Your task to perform on an android device: Go to CNN.com Image 0: 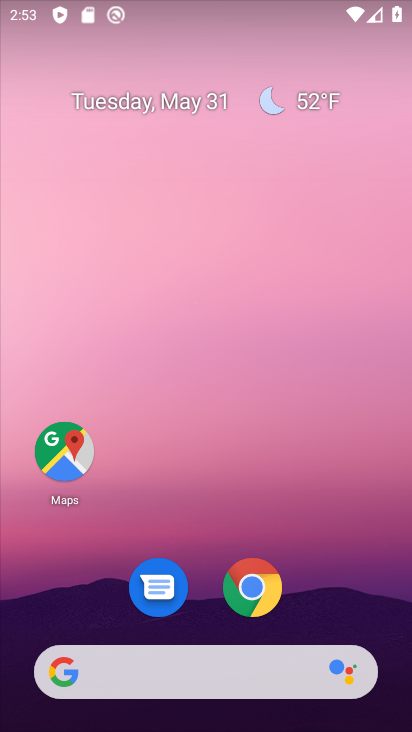
Step 0: click (256, 603)
Your task to perform on an android device: Go to CNN.com Image 1: 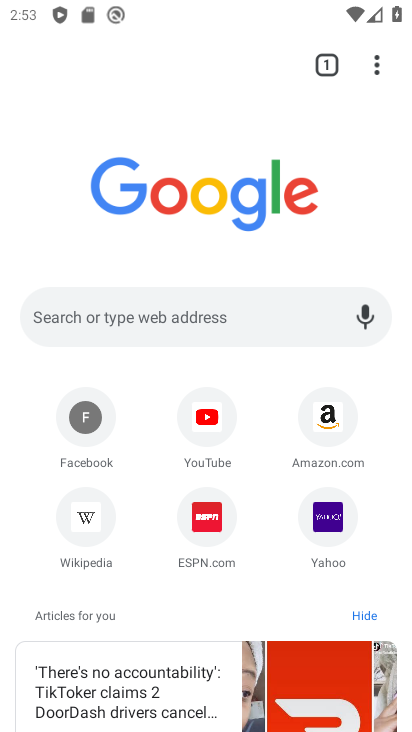
Step 1: click (183, 300)
Your task to perform on an android device: Go to CNN.com Image 2: 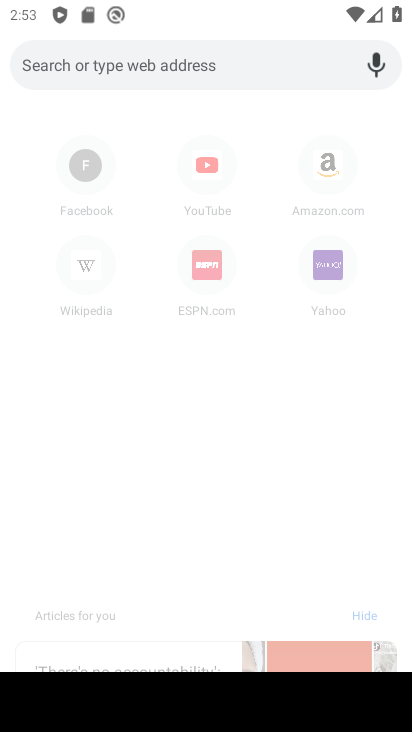
Step 2: type "cnn.com"
Your task to perform on an android device: Go to CNN.com Image 3: 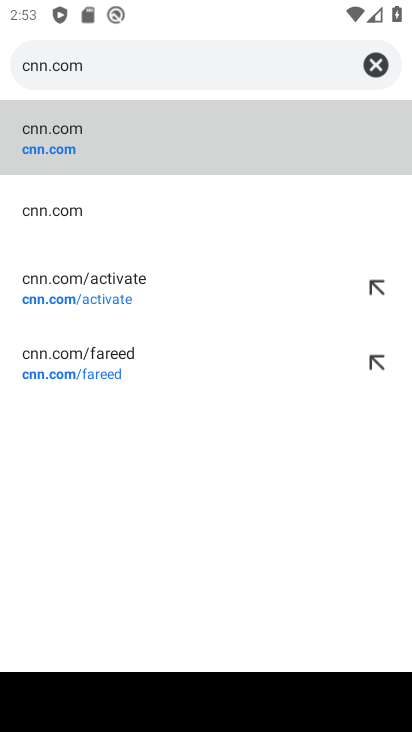
Step 3: click (65, 148)
Your task to perform on an android device: Go to CNN.com Image 4: 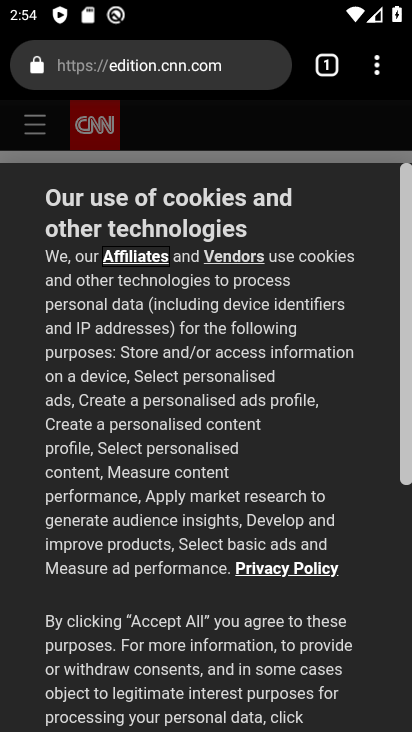
Step 4: task complete